Your task to perform on an android device: Play the last video I watched on Youtube Image 0: 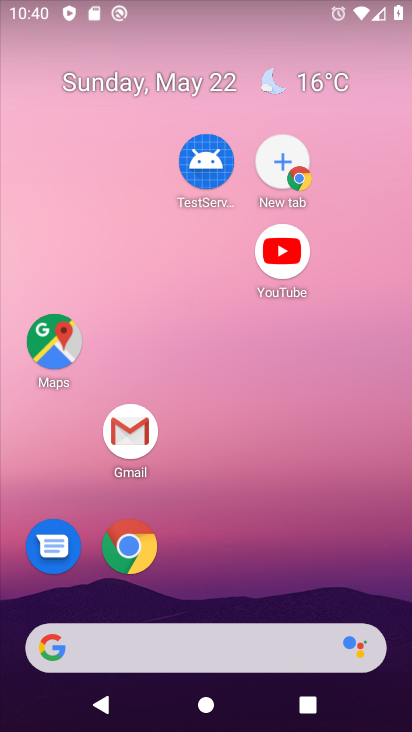
Step 0: drag from (282, 704) to (163, 168)
Your task to perform on an android device: Play the last video I watched on Youtube Image 1: 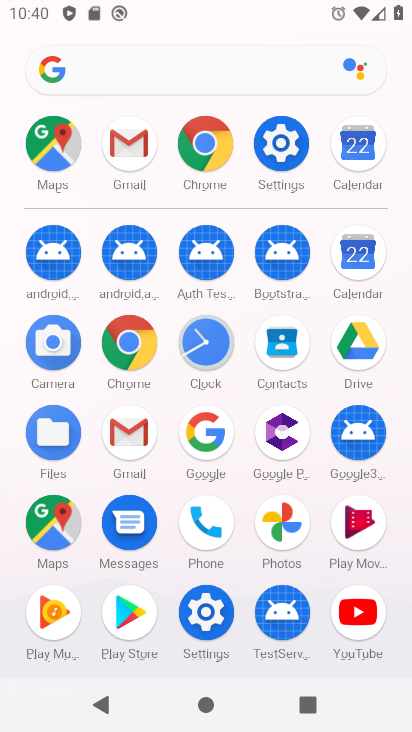
Step 1: click (357, 611)
Your task to perform on an android device: Play the last video I watched on Youtube Image 2: 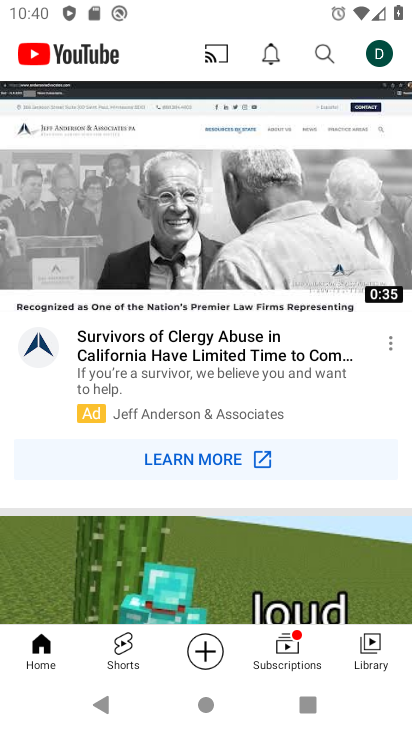
Step 2: drag from (155, 341) to (155, 213)
Your task to perform on an android device: Play the last video I watched on Youtube Image 3: 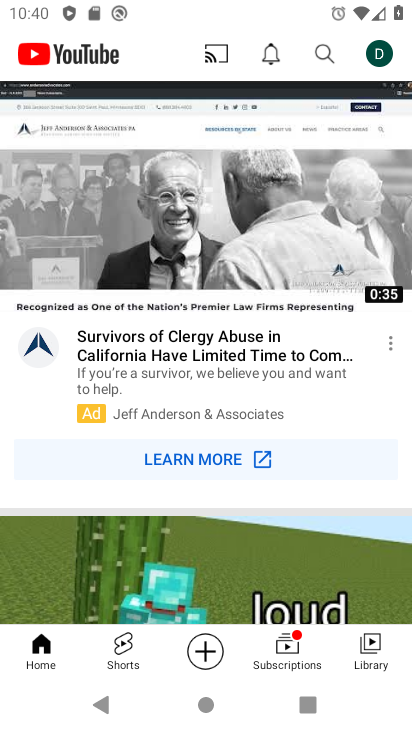
Step 3: drag from (211, 400) to (211, 266)
Your task to perform on an android device: Play the last video I watched on Youtube Image 4: 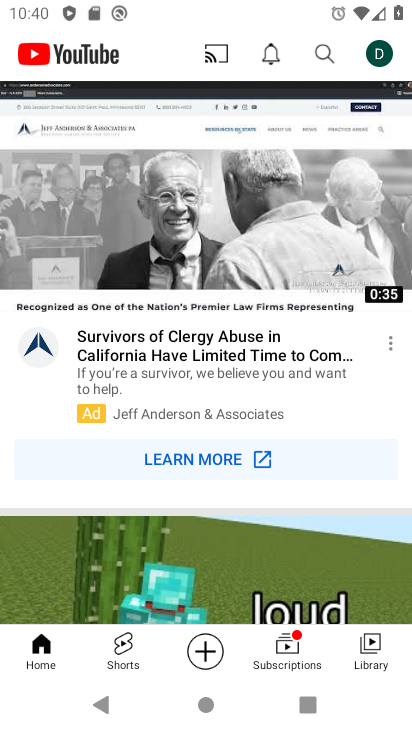
Step 4: drag from (254, 546) to (253, 264)
Your task to perform on an android device: Play the last video I watched on Youtube Image 5: 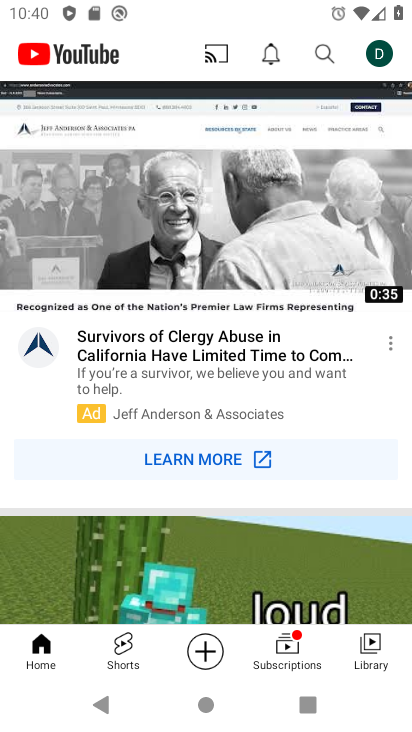
Step 5: drag from (217, 470) to (271, 172)
Your task to perform on an android device: Play the last video I watched on Youtube Image 6: 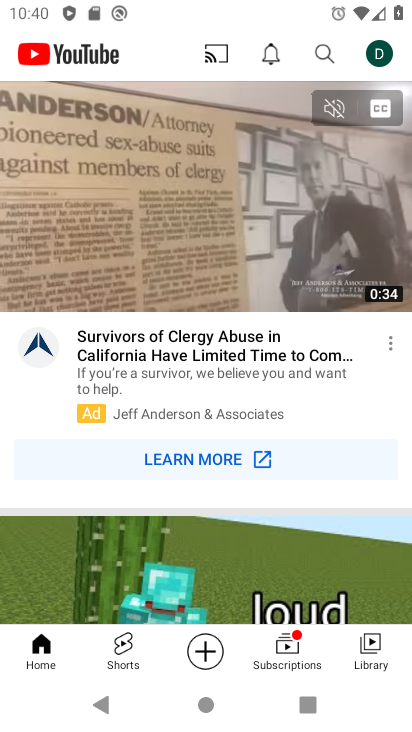
Step 6: click (318, 252)
Your task to perform on an android device: Play the last video I watched on Youtube Image 7: 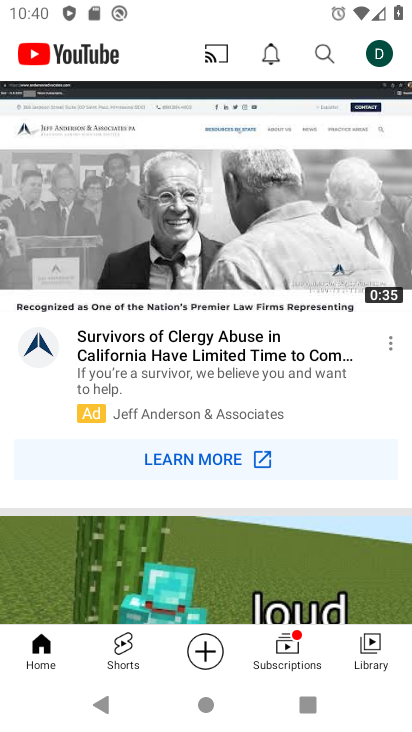
Step 7: click (264, 220)
Your task to perform on an android device: Play the last video I watched on Youtube Image 8: 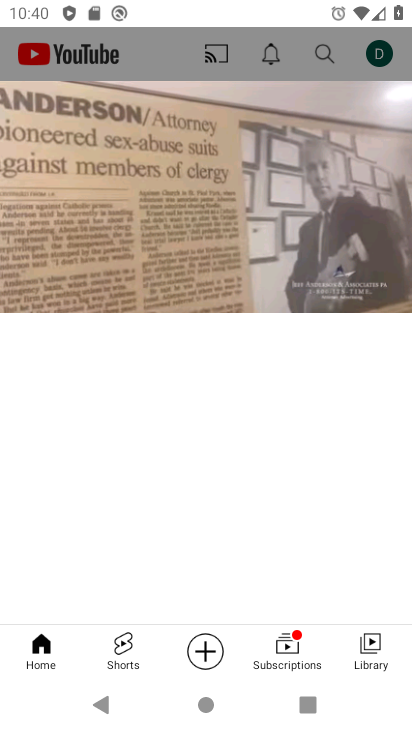
Step 8: task complete